Your task to perform on an android device: Open Chrome and go to settings Image 0: 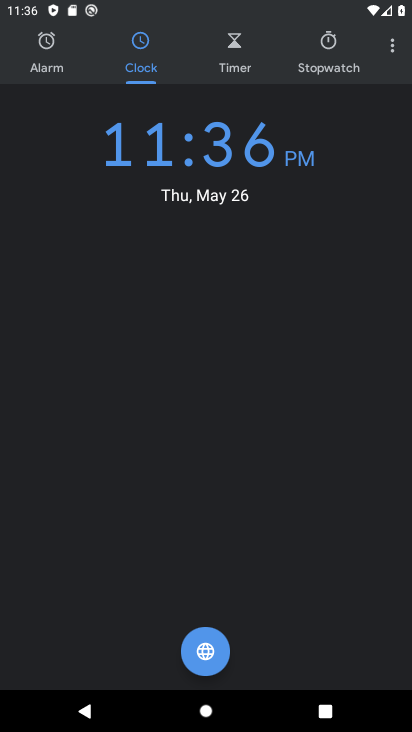
Step 0: press home button
Your task to perform on an android device: Open Chrome and go to settings Image 1: 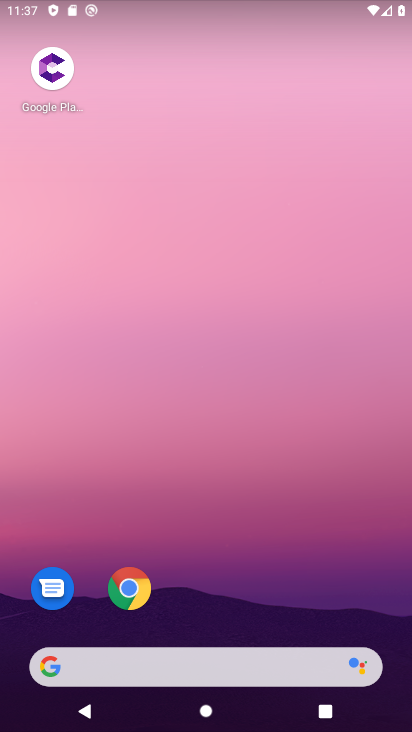
Step 1: click (115, 581)
Your task to perform on an android device: Open Chrome and go to settings Image 2: 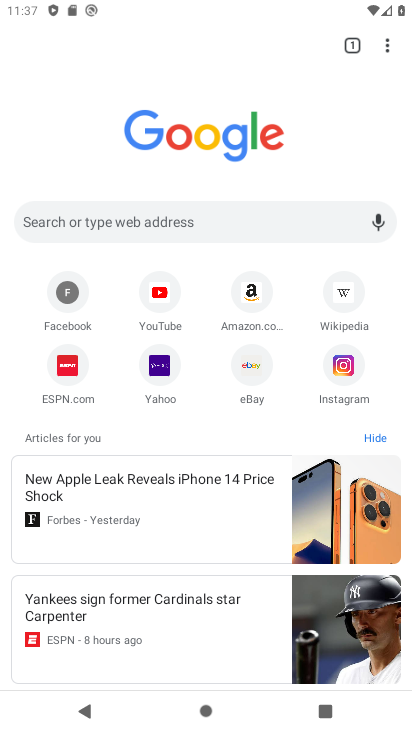
Step 2: click (386, 42)
Your task to perform on an android device: Open Chrome and go to settings Image 3: 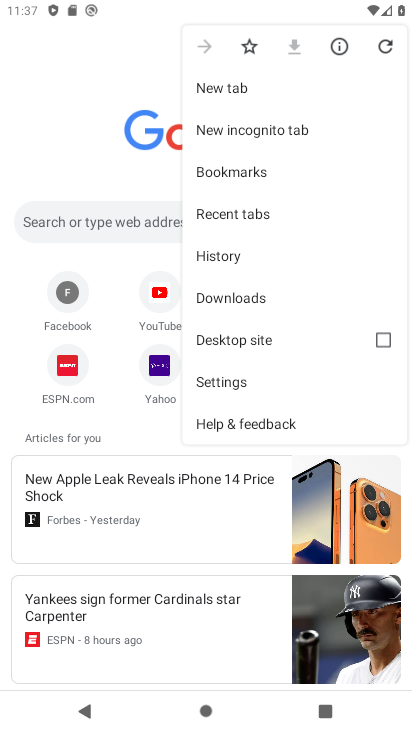
Step 3: click (215, 378)
Your task to perform on an android device: Open Chrome and go to settings Image 4: 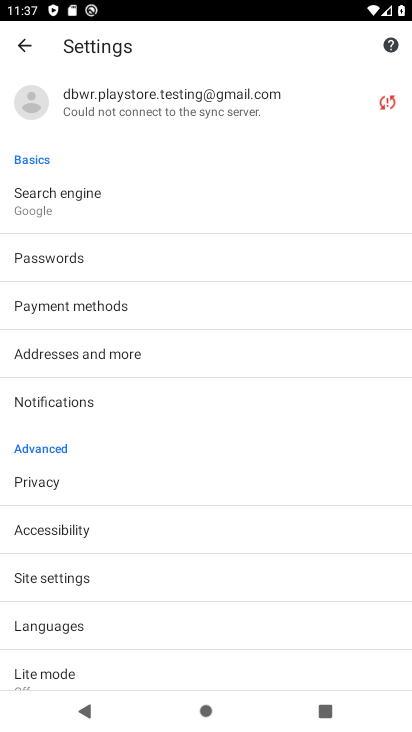
Step 4: task complete